Your task to perform on an android device: open app "Fetch Rewards" (install if not already installed), go to login, and select forgot password Image 0: 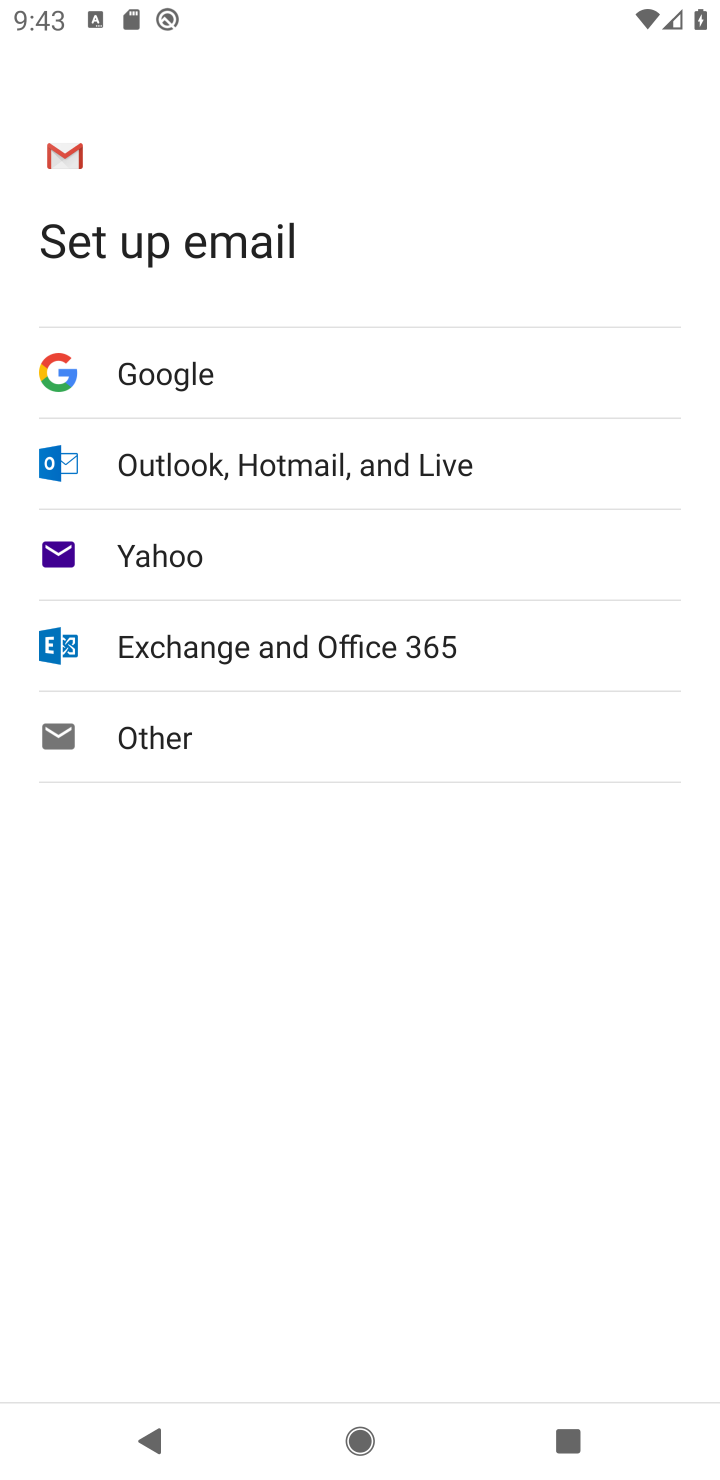
Step 0: press back button
Your task to perform on an android device: open app "Fetch Rewards" (install if not already installed), go to login, and select forgot password Image 1: 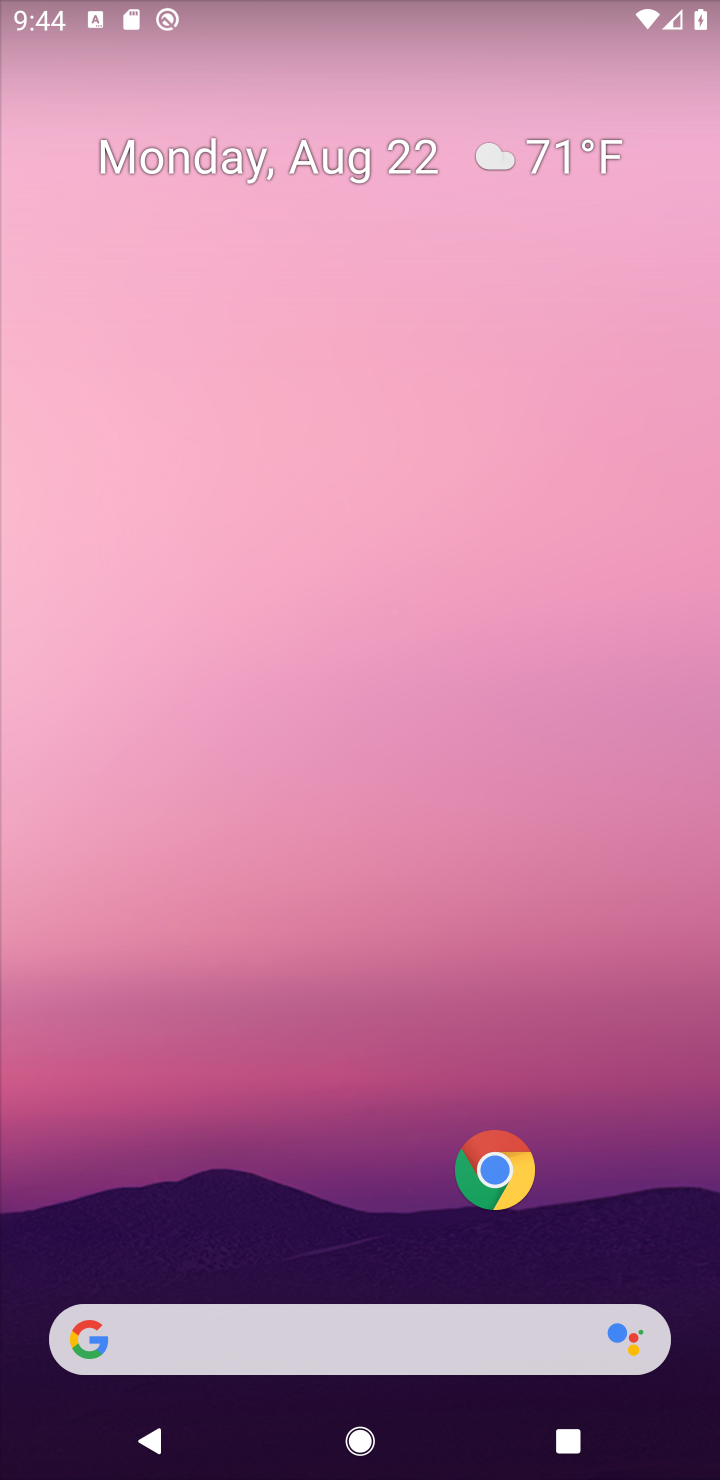
Step 1: drag from (326, 827) to (436, 65)
Your task to perform on an android device: open app "Fetch Rewards" (install if not already installed), go to login, and select forgot password Image 2: 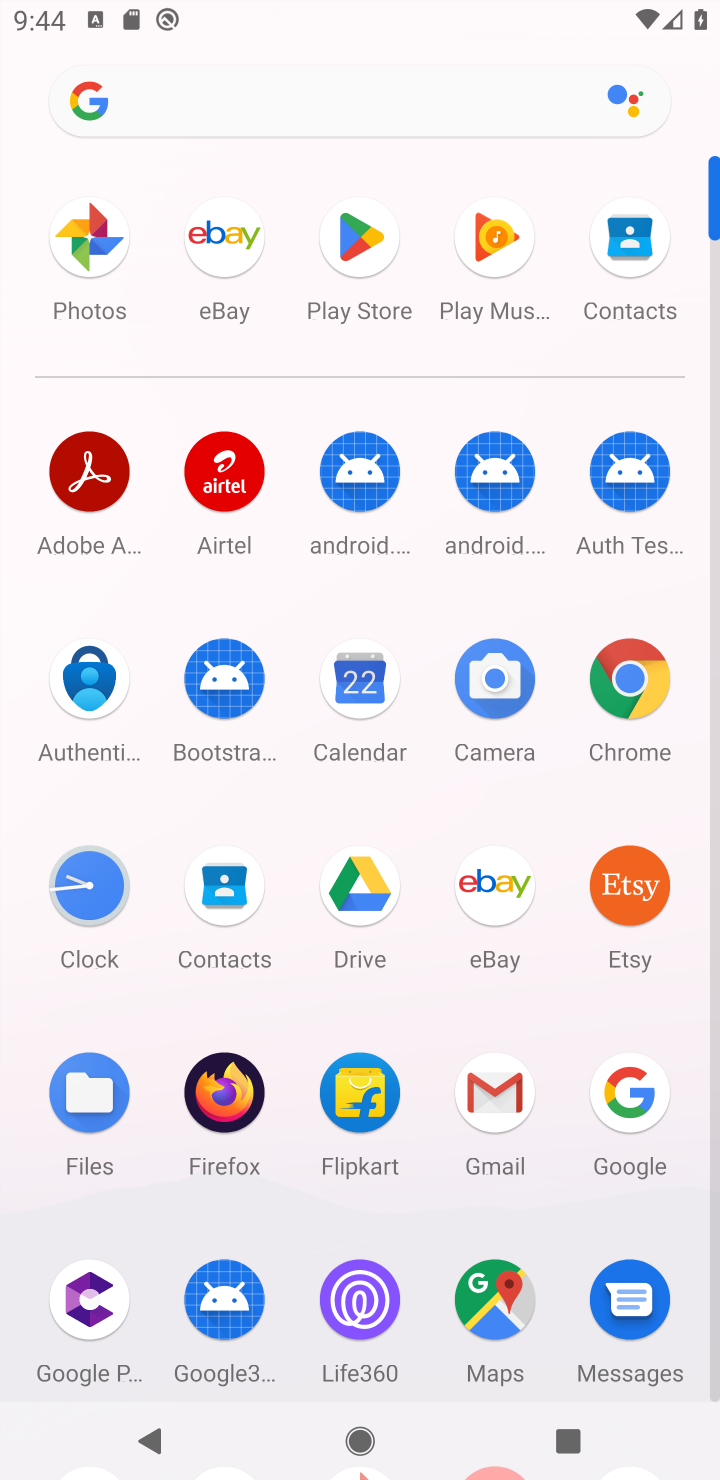
Step 2: click (361, 239)
Your task to perform on an android device: open app "Fetch Rewards" (install if not already installed), go to login, and select forgot password Image 3: 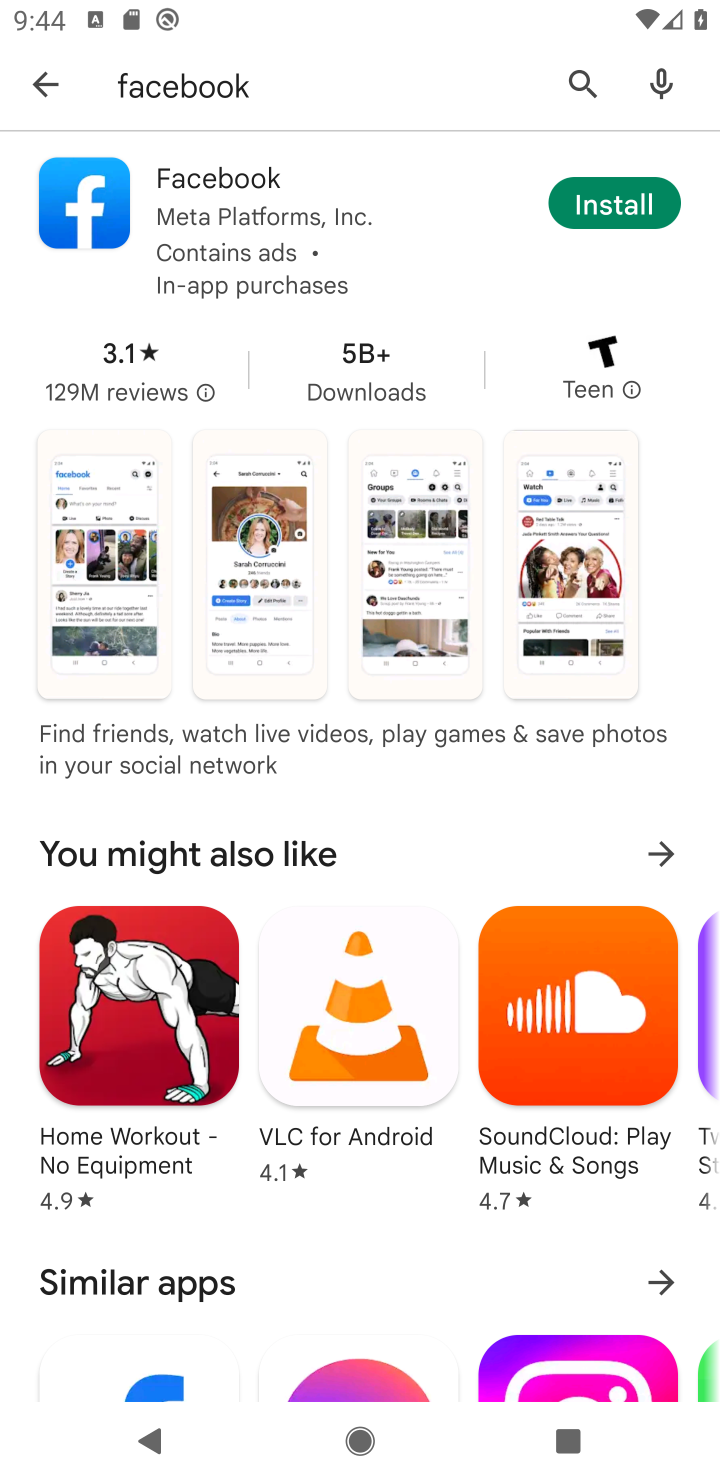
Step 3: click (590, 89)
Your task to perform on an android device: open app "Fetch Rewards" (install if not already installed), go to login, and select forgot password Image 4: 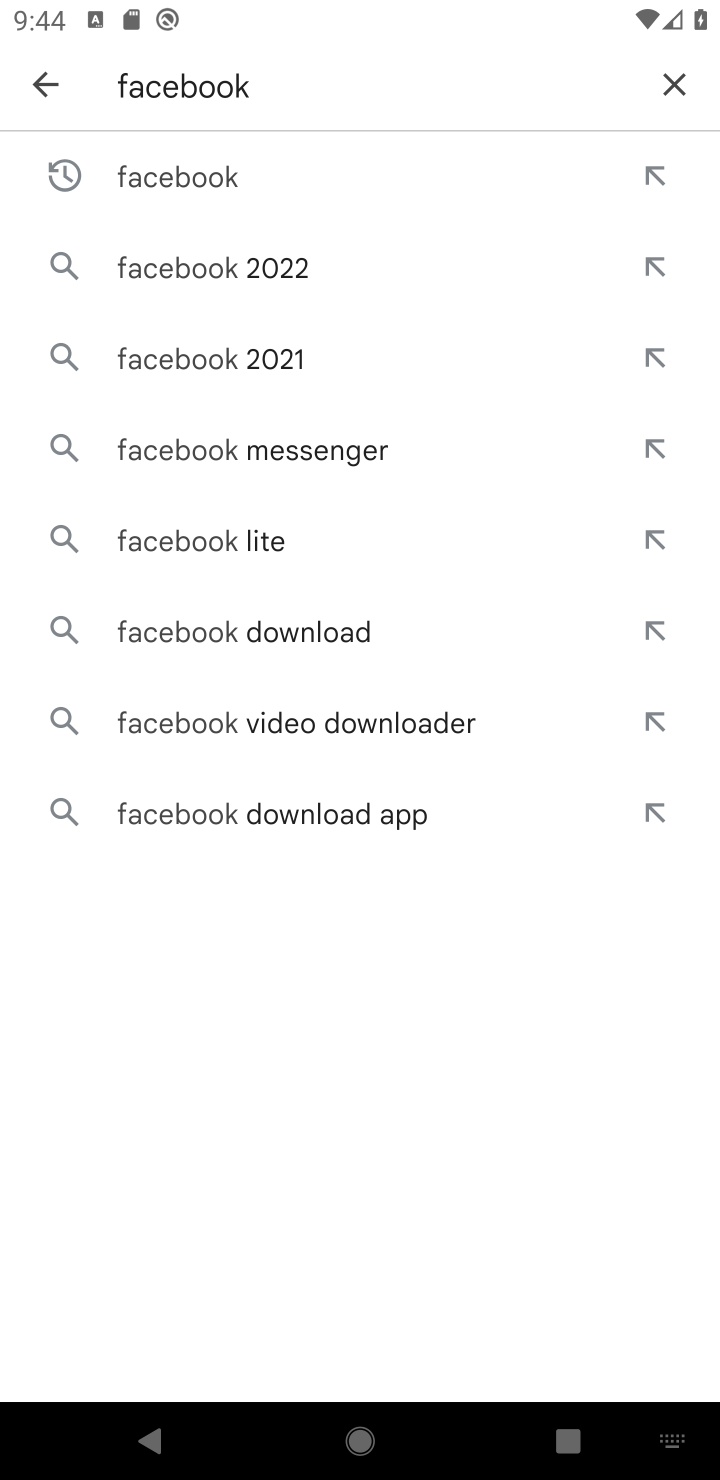
Step 4: click (680, 61)
Your task to perform on an android device: open app "Fetch Rewards" (install if not already installed), go to login, and select forgot password Image 5: 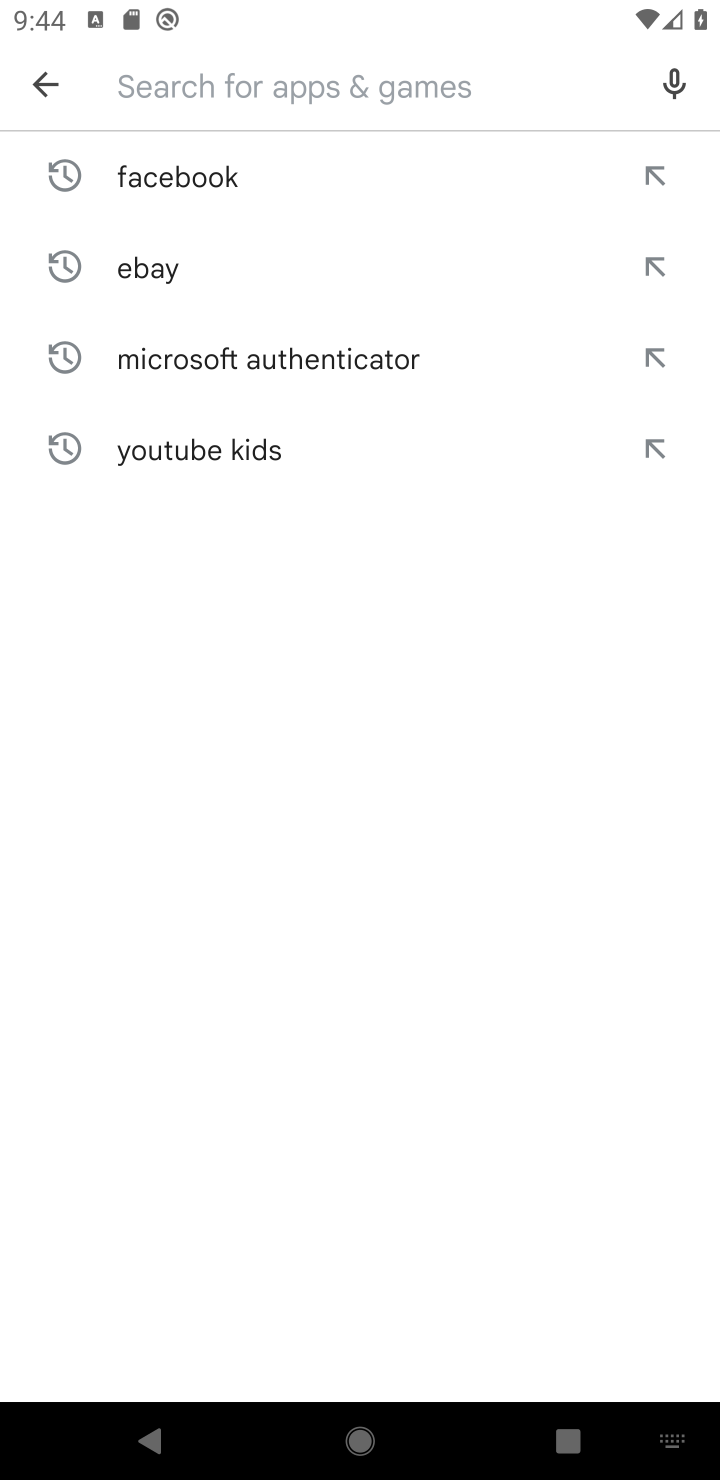
Step 5: type "fetch rewards"
Your task to perform on an android device: open app "Fetch Rewards" (install if not already installed), go to login, and select forgot password Image 6: 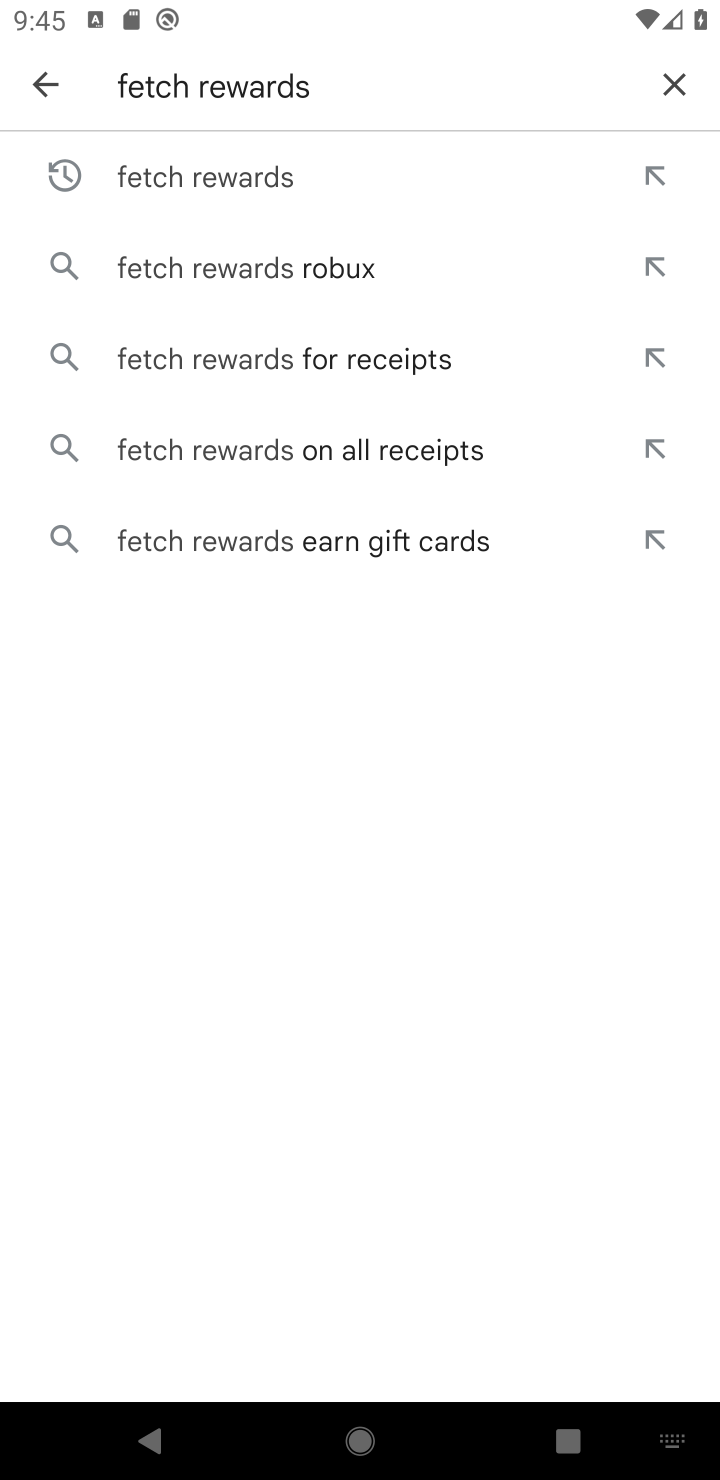
Step 6: click (284, 180)
Your task to perform on an android device: open app "Fetch Rewards" (install if not already installed), go to login, and select forgot password Image 7: 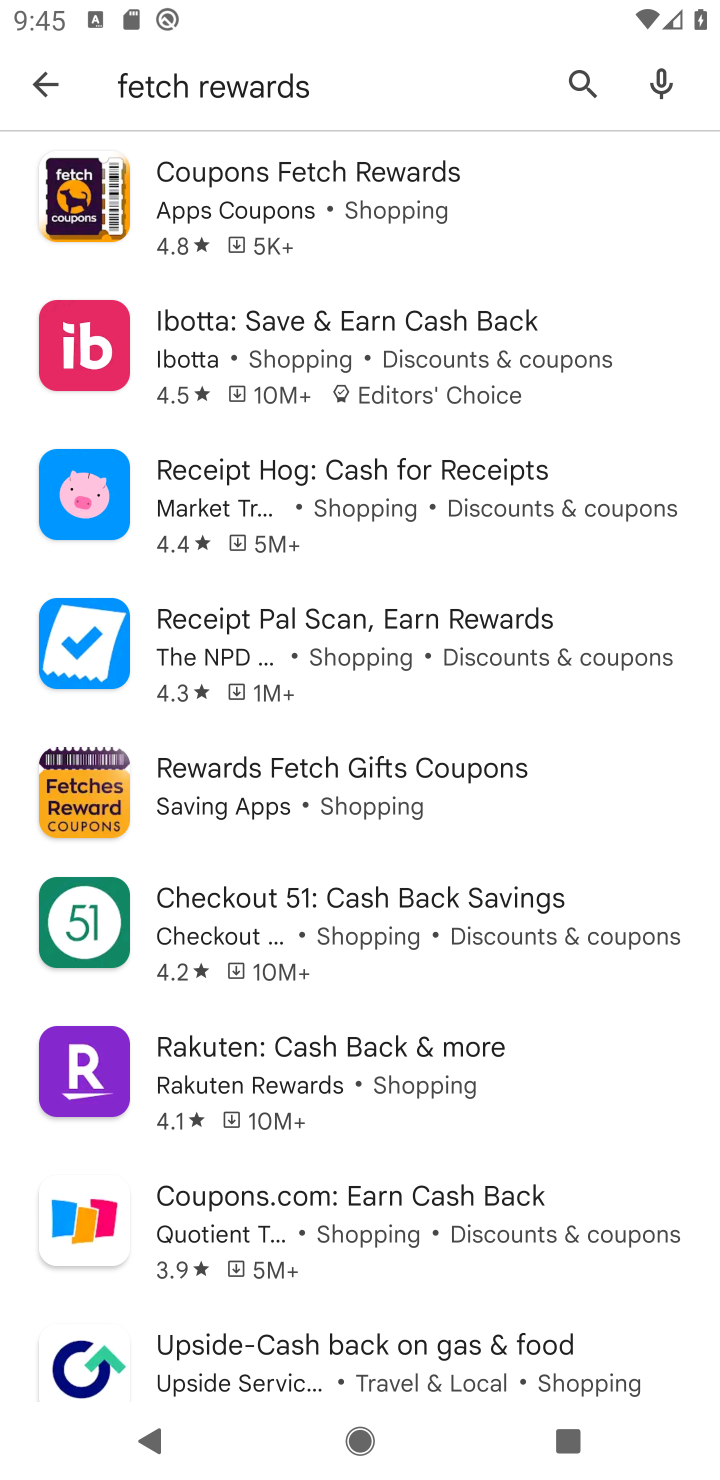
Step 7: task complete